Your task to perform on an android device: Show me popular games on the Play Store Image 0: 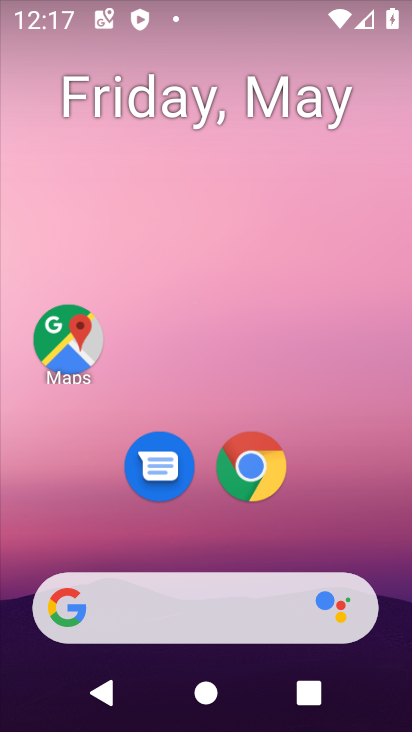
Step 0: drag from (394, 586) to (283, 32)
Your task to perform on an android device: Show me popular games on the Play Store Image 1: 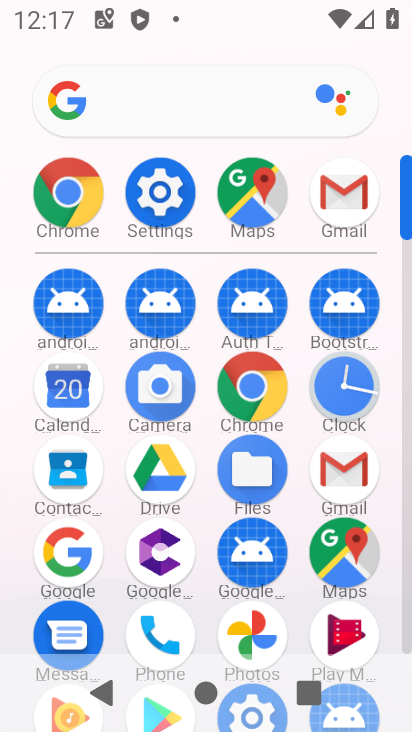
Step 1: drag from (219, 640) to (219, 182)
Your task to perform on an android device: Show me popular games on the Play Store Image 2: 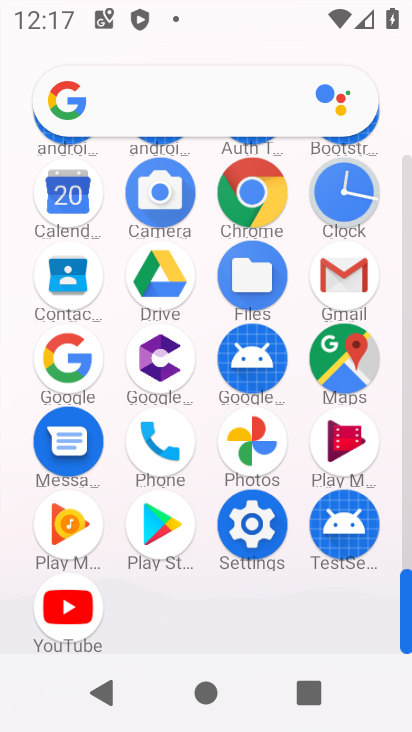
Step 2: click (169, 547)
Your task to perform on an android device: Show me popular games on the Play Store Image 3: 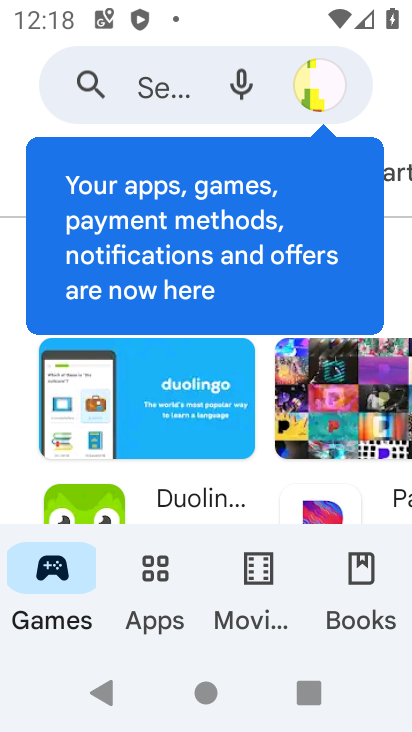
Step 3: task complete